Your task to perform on an android device: Open location settings Image 0: 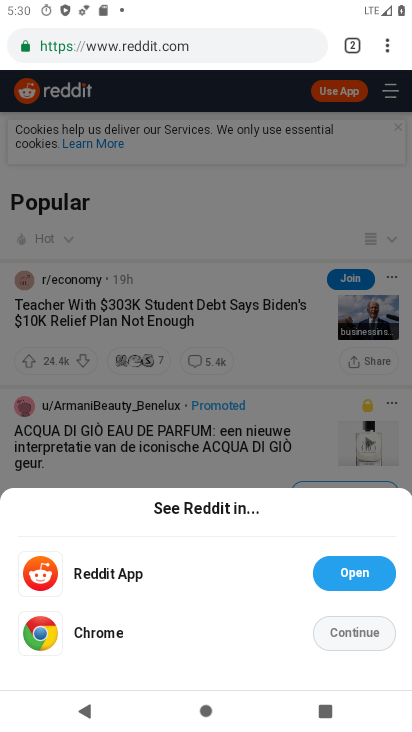
Step 0: press home button
Your task to perform on an android device: Open location settings Image 1: 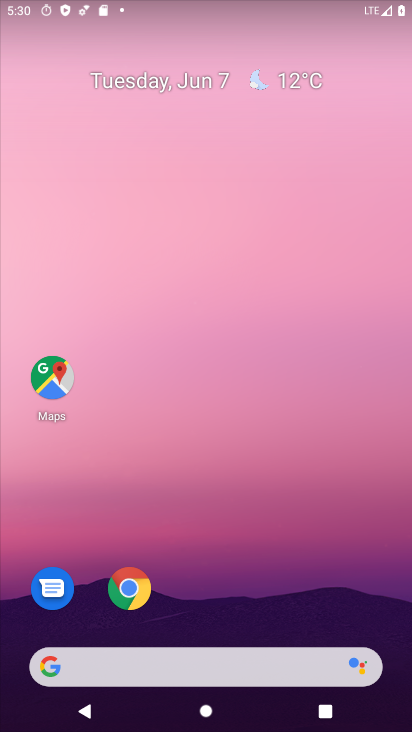
Step 1: drag from (204, 607) to (201, 102)
Your task to perform on an android device: Open location settings Image 2: 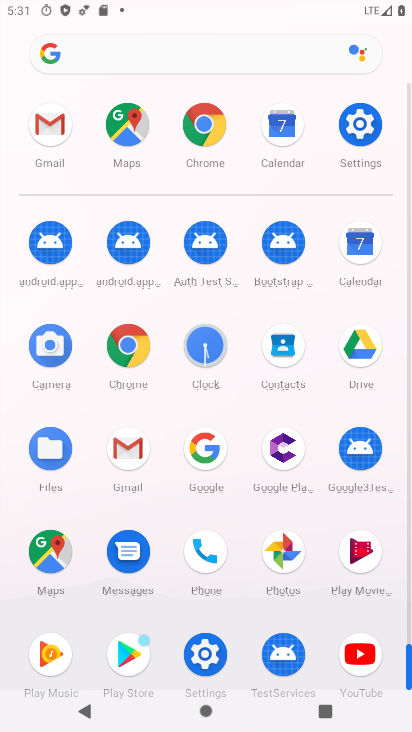
Step 2: click (351, 132)
Your task to perform on an android device: Open location settings Image 3: 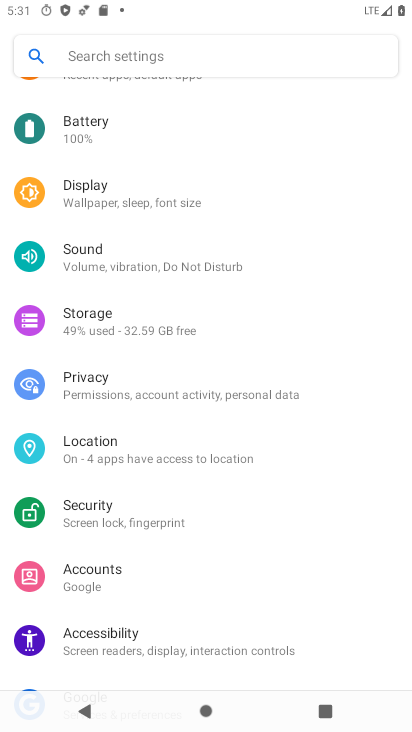
Step 3: click (96, 451)
Your task to perform on an android device: Open location settings Image 4: 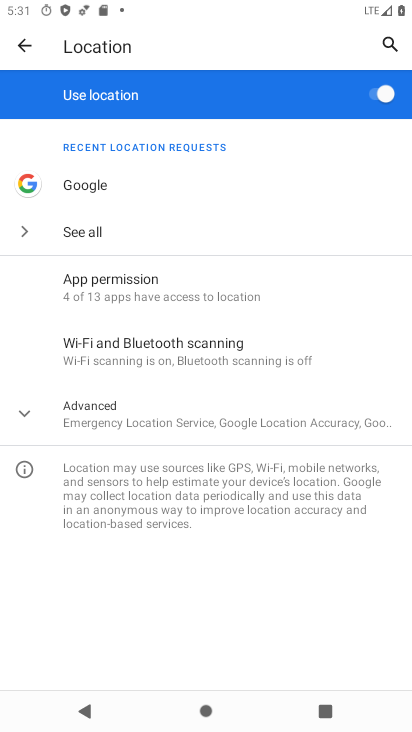
Step 4: task complete